Your task to perform on an android device: Open my contact list Image 0: 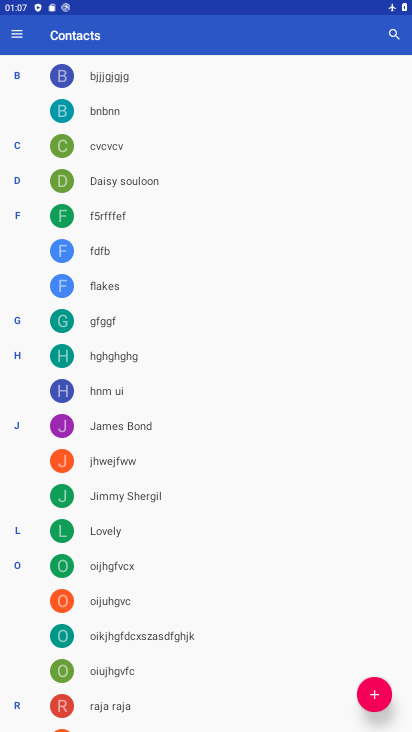
Step 0: task complete